Your task to perform on an android device: turn off picture-in-picture Image 0: 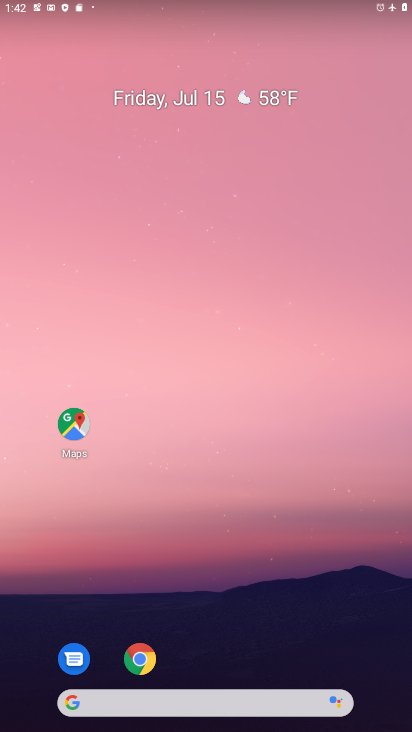
Step 0: drag from (224, 697) to (209, 218)
Your task to perform on an android device: turn off picture-in-picture Image 1: 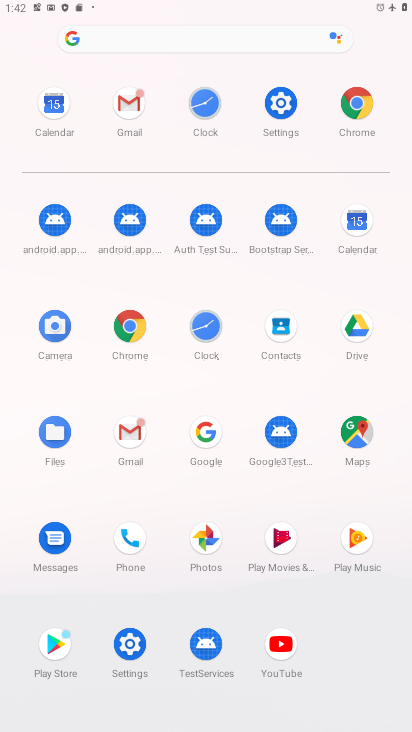
Step 1: click (277, 98)
Your task to perform on an android device: turn off picture-in-picture Image 2: 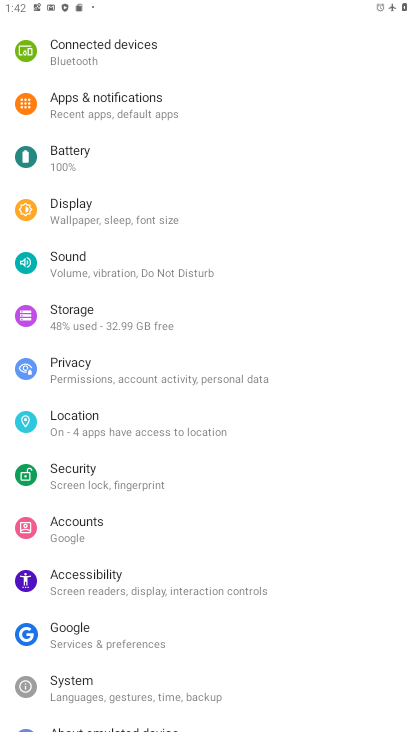
Step 2: click (108, 97)
Your task to perform on an android device: turn off picture-in-picture Image 3: 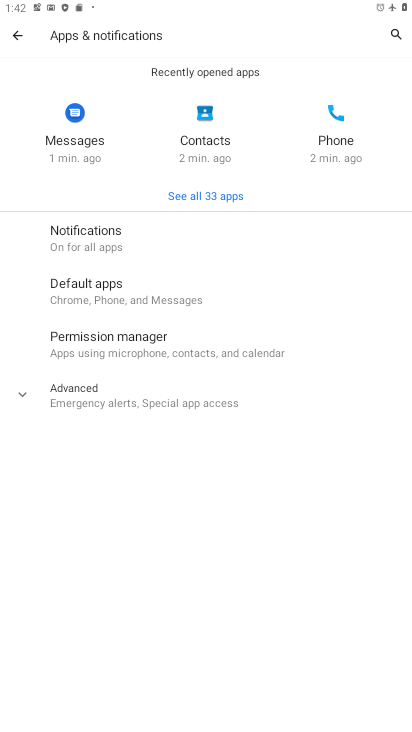
Step 3: click (71, 395)
Your task to perform on an android device: turn off picture-in-picture Image 4: 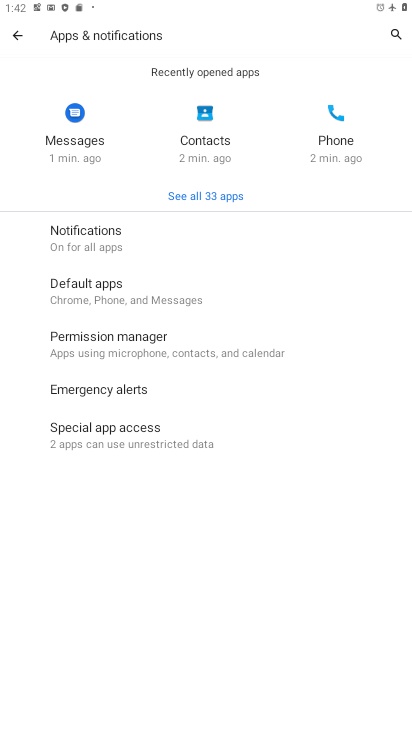
Step 4: click (107, 440)
Your task to perform on an android device: turn off picture-in-picture Image 5: 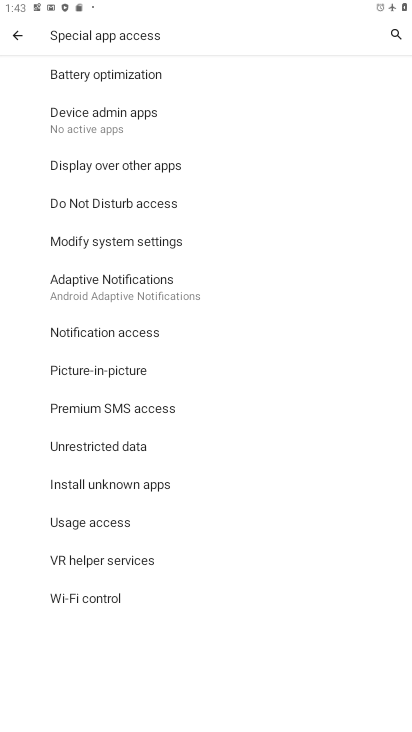
Step 5: click (99, 371)
Your task to perform on an android device: turn off picture-in-picture Image 6: 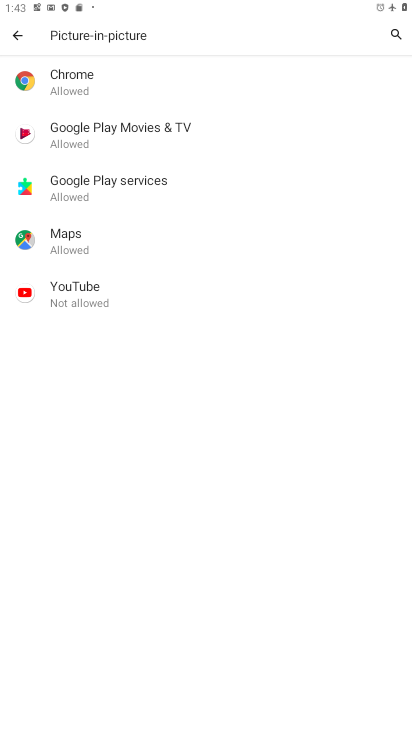
Step 6: click (70, 295)
Your task to perform on an android device: turn off picture-in-picture Image 7: 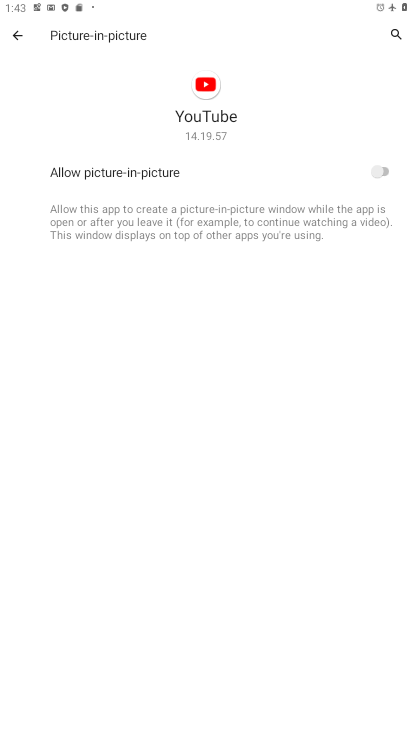
Step 7: task complete